Your task to perform on an android device: clear history in the chrome app Image 0: 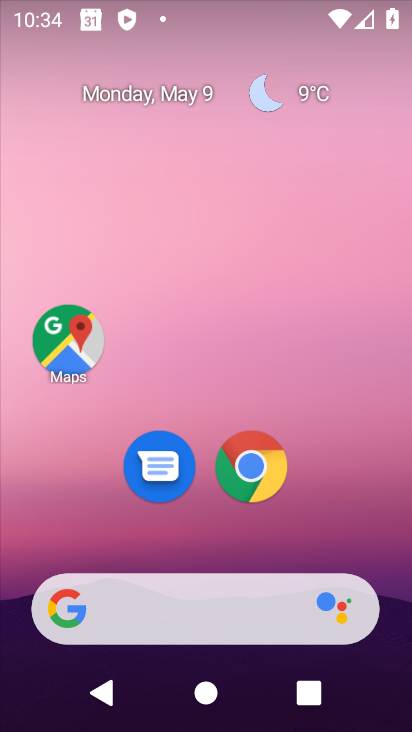
Step 0: click (250, 470)
Your task to perform on an android device: clear history in the chrome app Image 1: 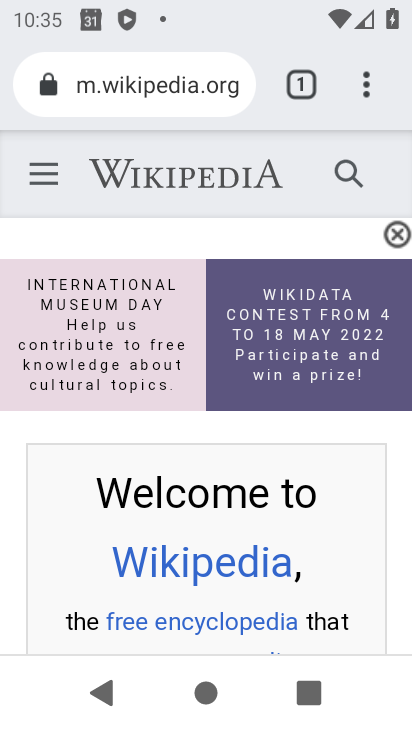
Step 1: click (388, 70)
Your task to perform on an android device: clear history in the chrome app Image 2: 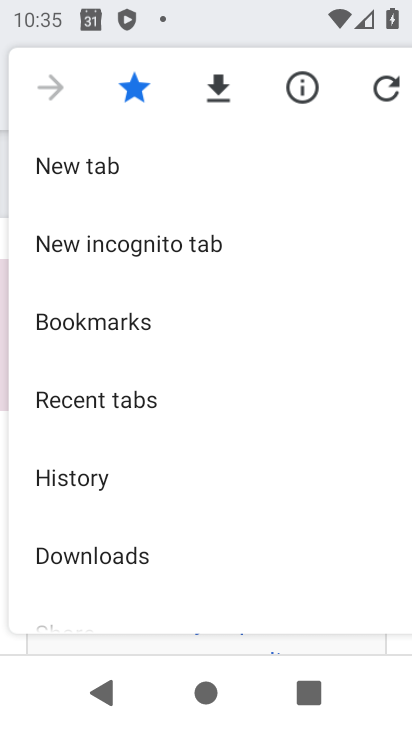
Step 2: click (65, 487)
Your task to perform on an android device: clear history in the chrome app Image 3: 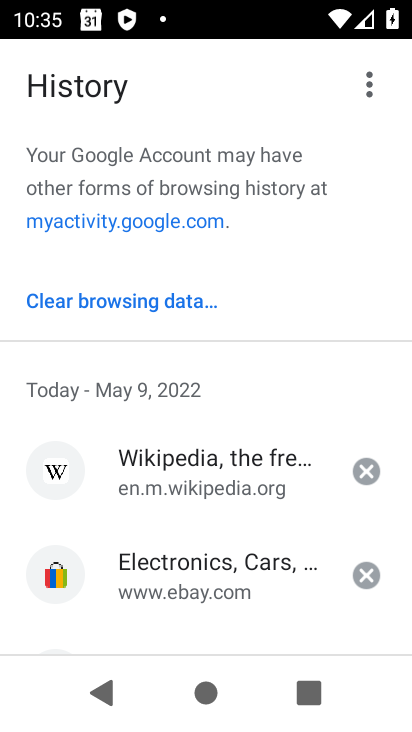
Step 3: click (116, 312)
Your task to perform on an android device: clear history in the chrome app Image 4: 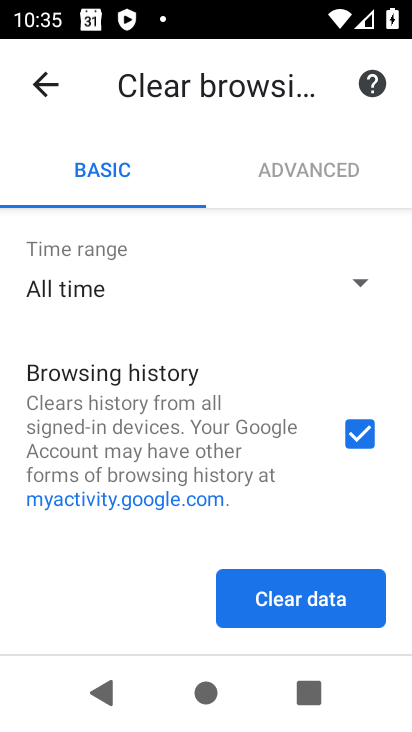
Step 4: click (302, 608)
Your task to perform on an android device: clear history in the chrome app Image 5: 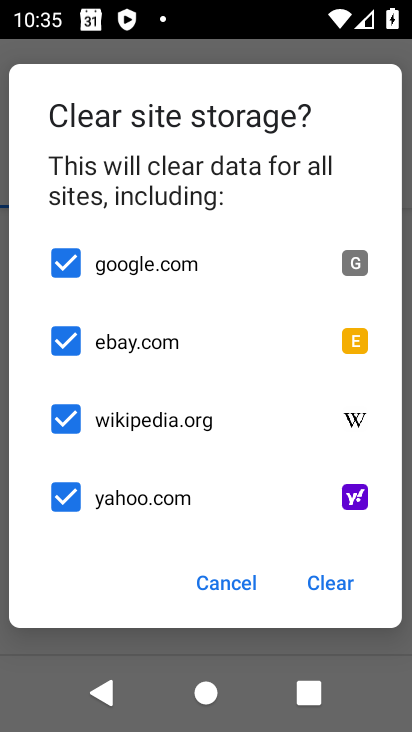
Step 5: click (343, 588)
Your task to perform on an android device: clear history in the chrome app Image 6: 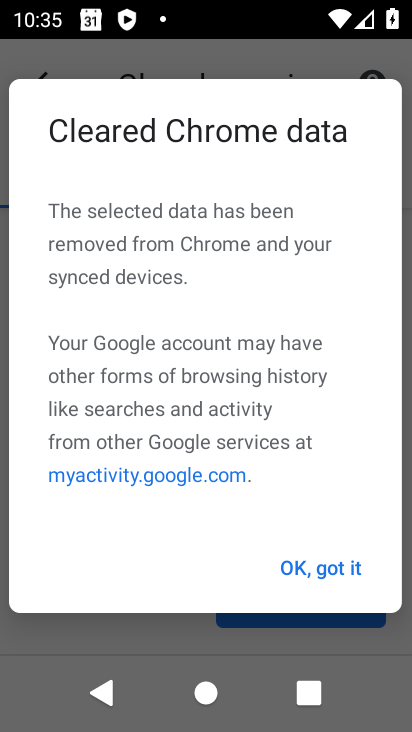
Step 6: click (332, 571)
Your task to perform on an android device: clear history in the chrome app Image 7: 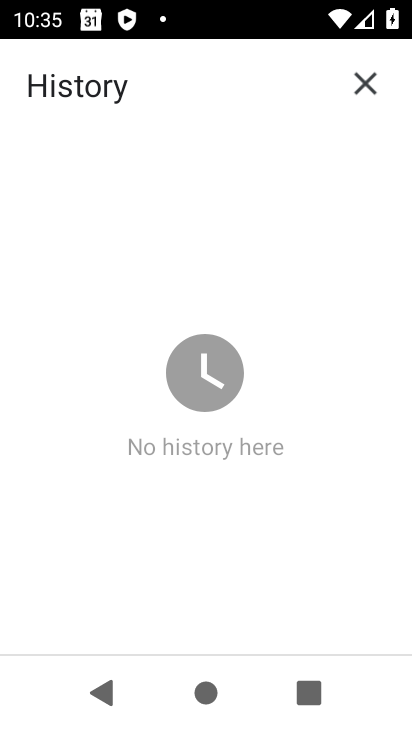
Step 7: task complete